Your task to perform on an android device: turn on airplane mode Image 0: 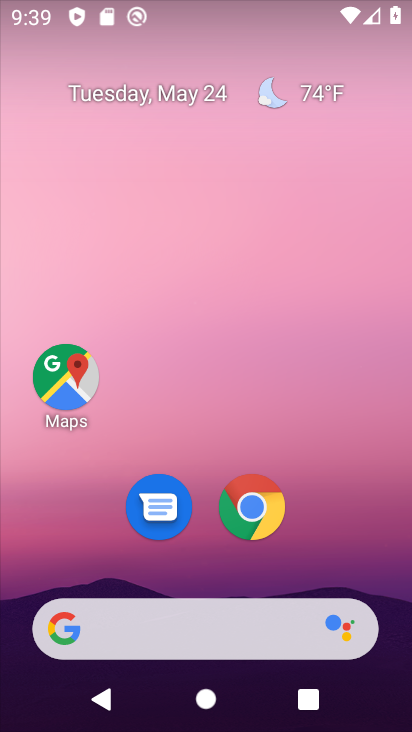
Step 0: drag from (237, 717) to (233, 175)
Your task to perform on an android device: turn on airplane mode Image 1: 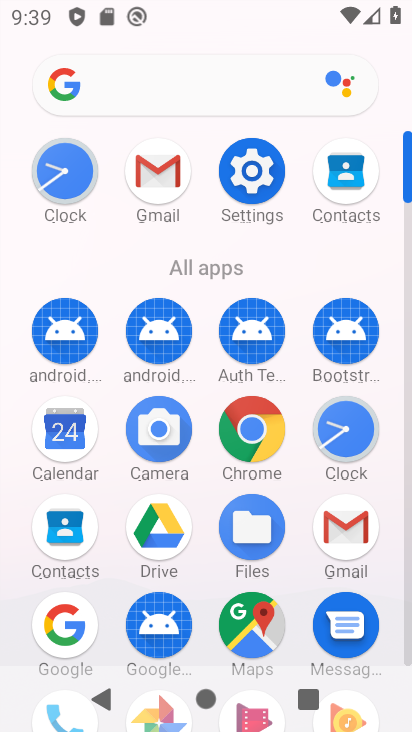
Step 1: click (253, 177)
Your task to perform on an android device: turn on airplane mode Image 2: 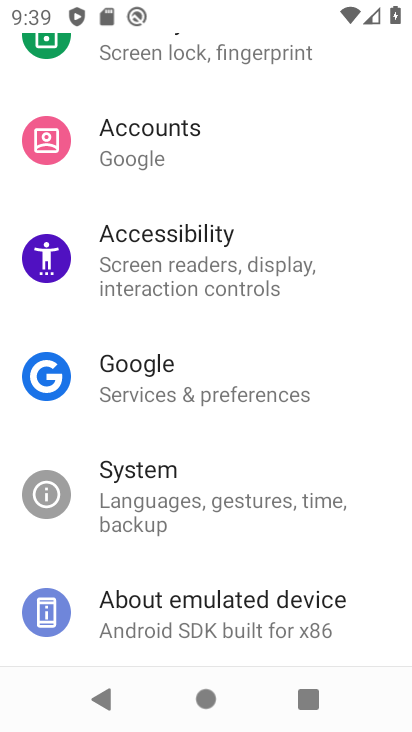
Step 2: drag from (220, 158) to (212, 614)
Your task to perform on an android device: turn on airplane mode Image 3: 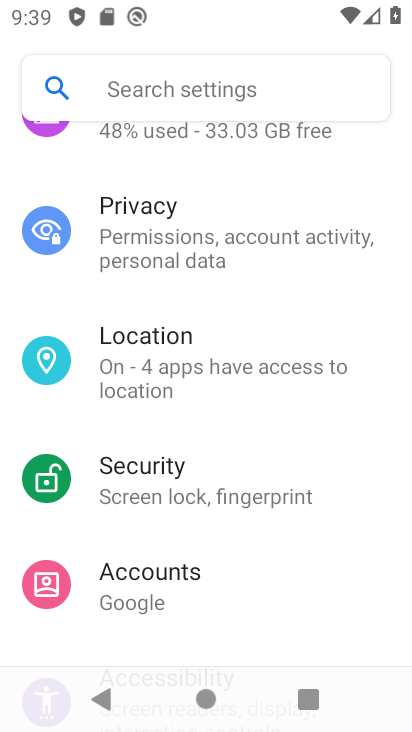
Step 3: drag from (222, 180) to (219, 604)
Your task to perform on an android device: turn on airplane mode Image 4: 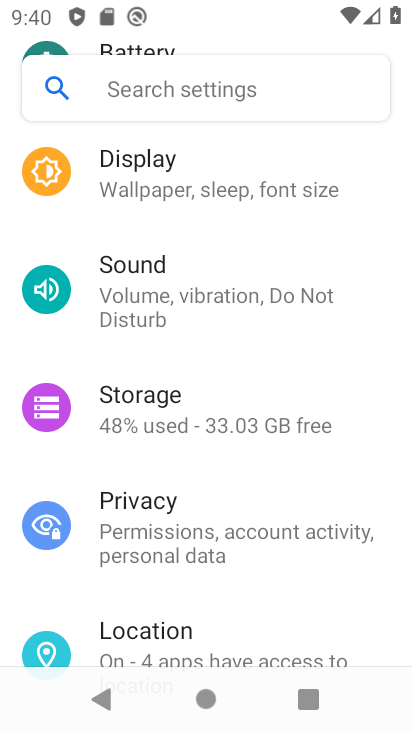
Step 4: drag from (194, 171) to (193, 652)
Your task to perform on an android device: turn on airplane mode Image 5: 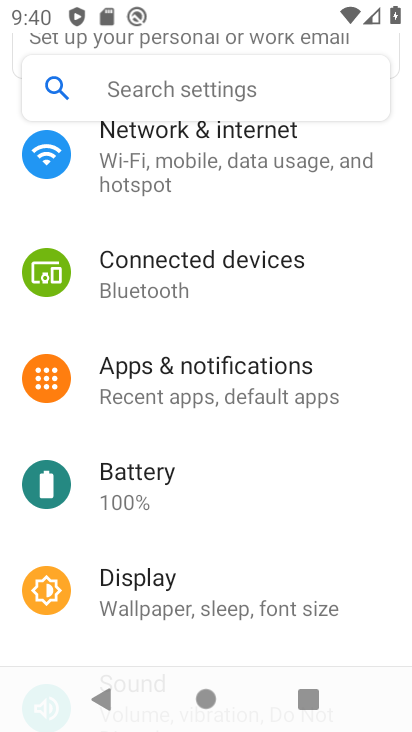
Step 5: click (173, 163)
Your task to perform on an android device: turn on airplane mode Image 6: 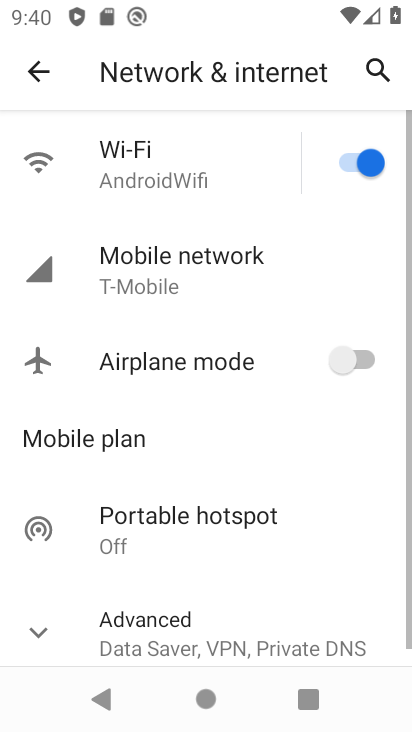
Step 6: click (359, 358)
Your task to perform on an android device: turn on airplane mode Image 7: 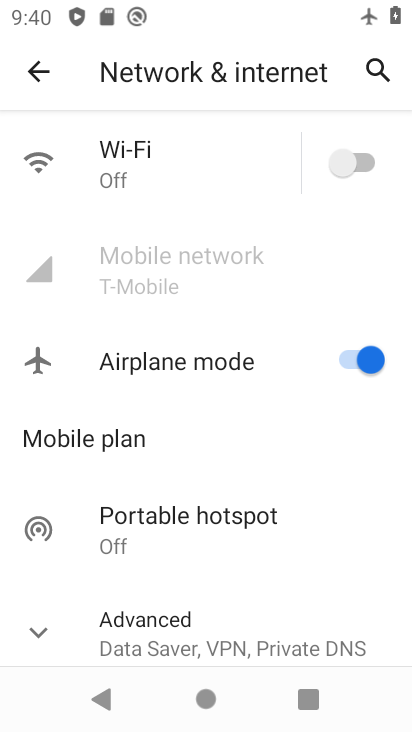
Step 7: task complete